Your task to perform on an android device: manage bookmarks in the chrome app Image 0: 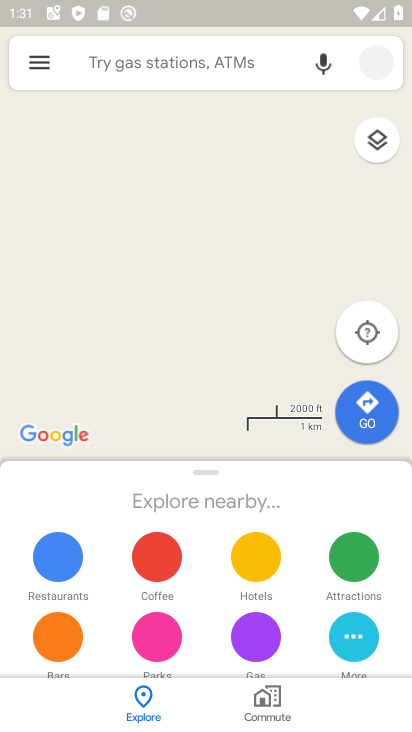
Step 0: press home button
Your task to perform on an android device: manage bookmarks in the chrome app Image 1: 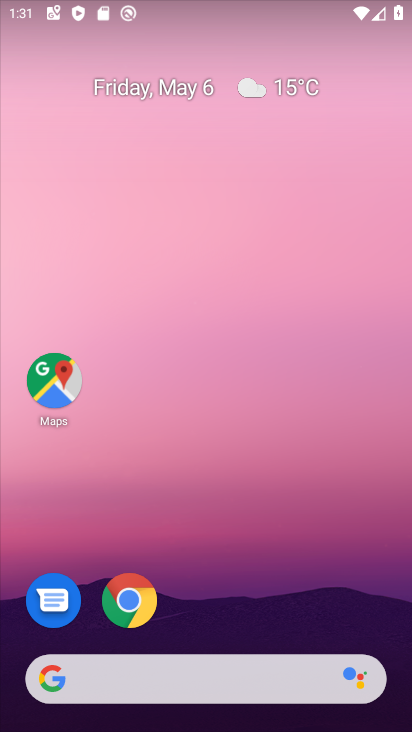
Step 1: drag from (316, 608) to (310, 38)
Your task to perform on an android device: manage bookmarks in the chrome app Image 2: 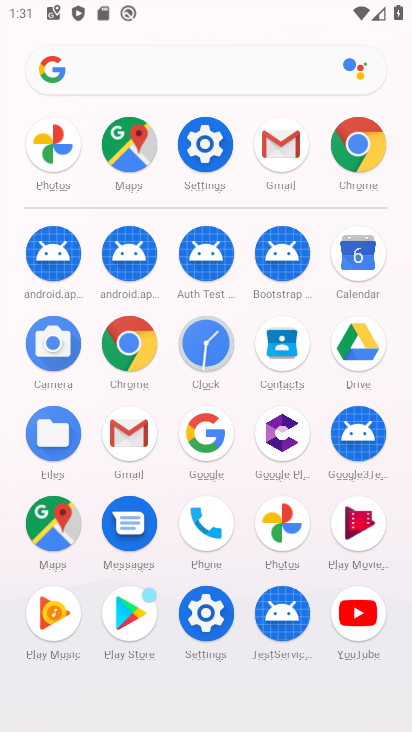
Step 2: click (352, 157)
Your task to perform on an android device: manage bookmarks in the chrome app Image 3: 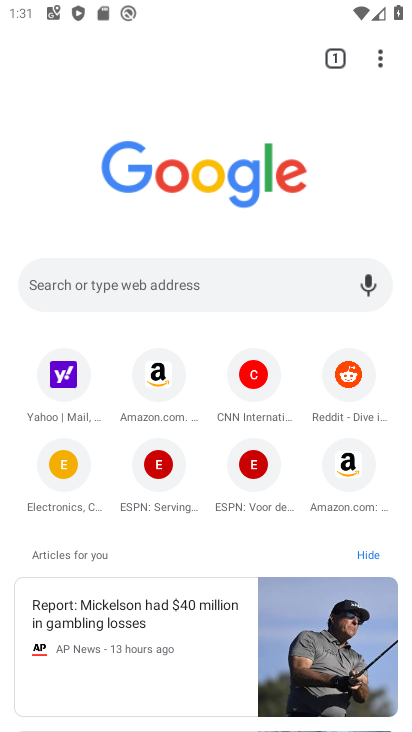
Step 3: task complete